Your task to perform on an android device: see sites visited before in the chrome app Image 0: 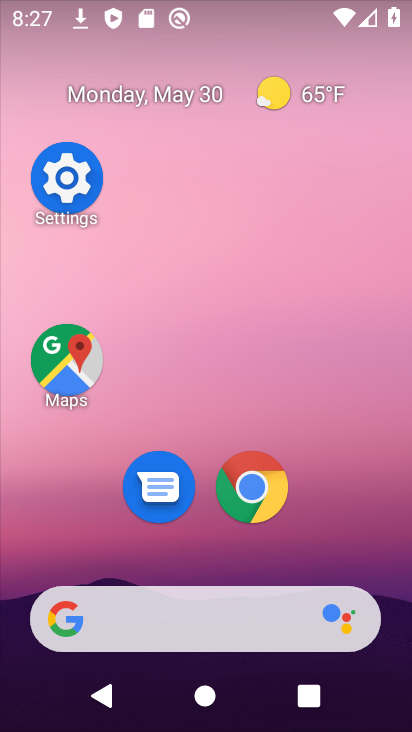
Step 0: click (255, 503)
Your task to perform on an android device: see sites visited before in the chrome app Image 1: 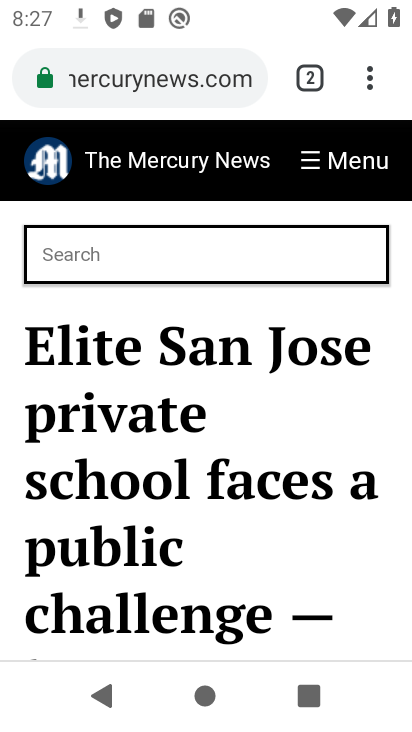
Step 1: click (383, 61)
Your task to perform on an android device: see sites visited before in the chrome app Image 2: 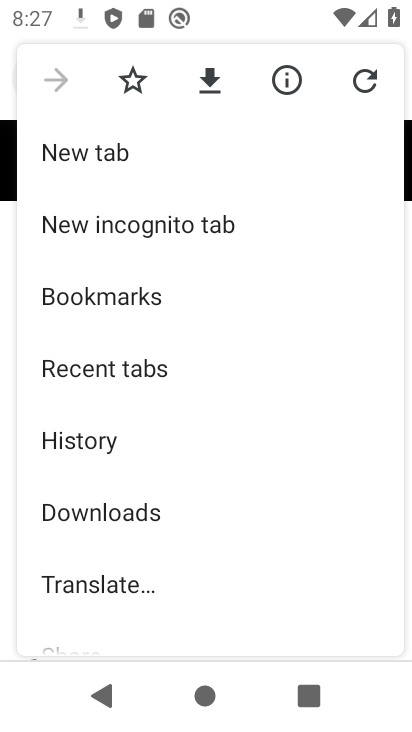
Step 2: click (160, 382)
Your task to perform on an android device: see sites visited before in the chrome app Image 3: 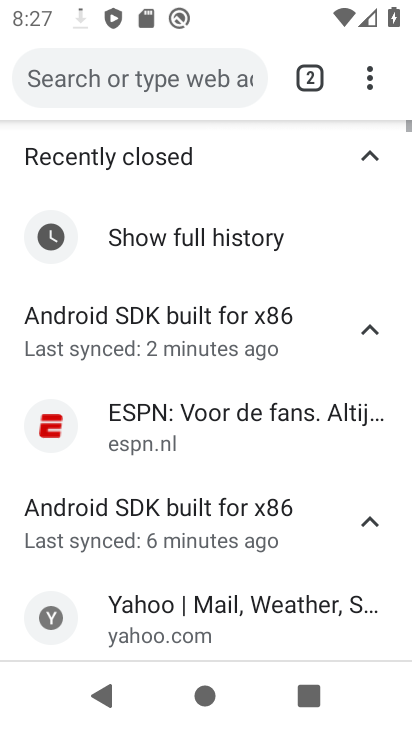
Step 3: task complete